Your task to perform on an android device: Open Yahoo.com Image 0: 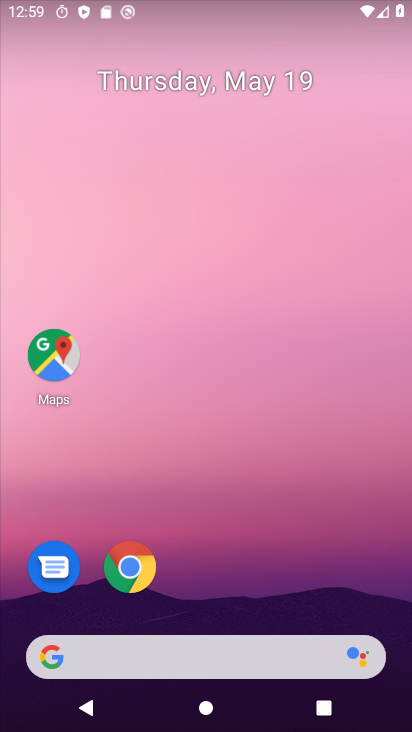
Step 0: press home button
Your task to perform on an android device: Open Yahoo.com Image 1: 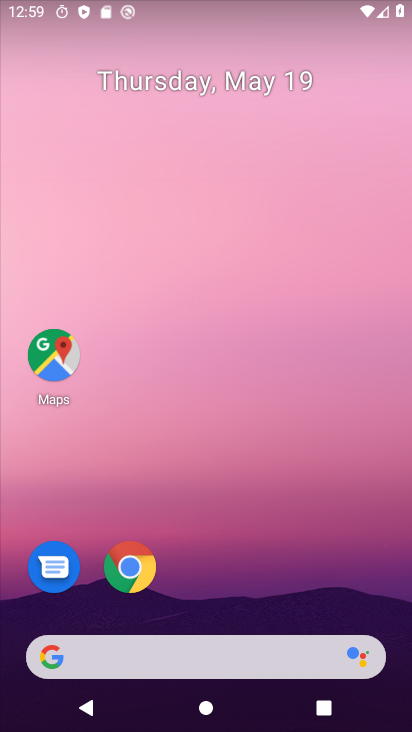
Step 1: click (135, 585)
Your task to perform on an android device: Open Yahoo.com Image 2: 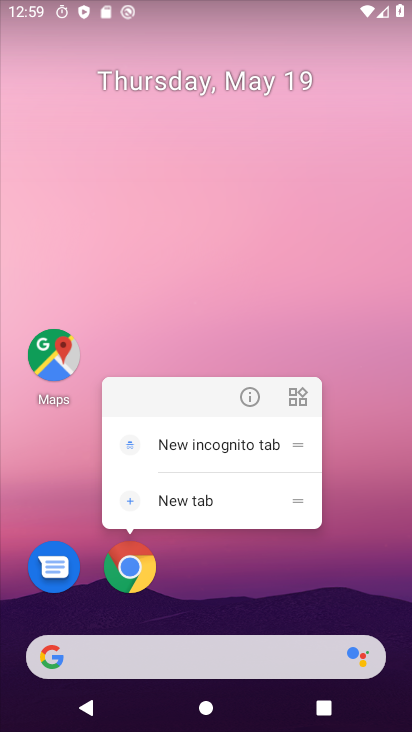
Step 2: click (133, 575)
Your task to perform on an android device: Open Yahoo.com Image 3: 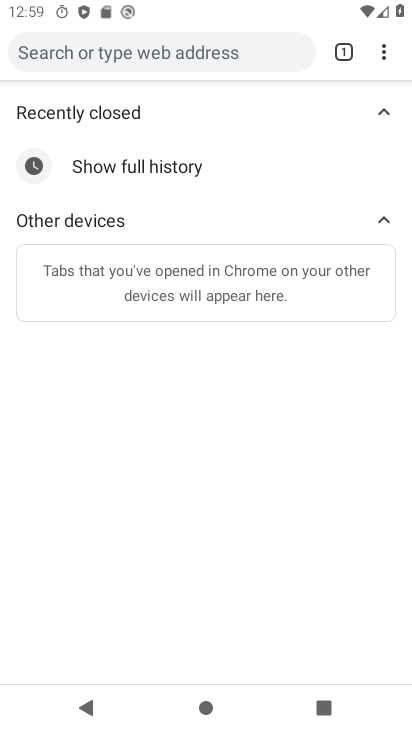
Step 3: drag from (380, 54) to (300, 105)
Your task to perform on an android device: Open Yahoo.com Image 4: 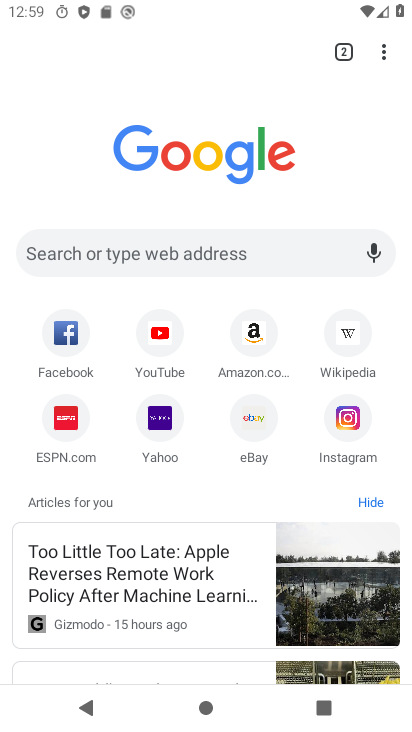
Step 4: click (158, 420)
Your task to perform on an android device: Open Yahoo.com Image 5: 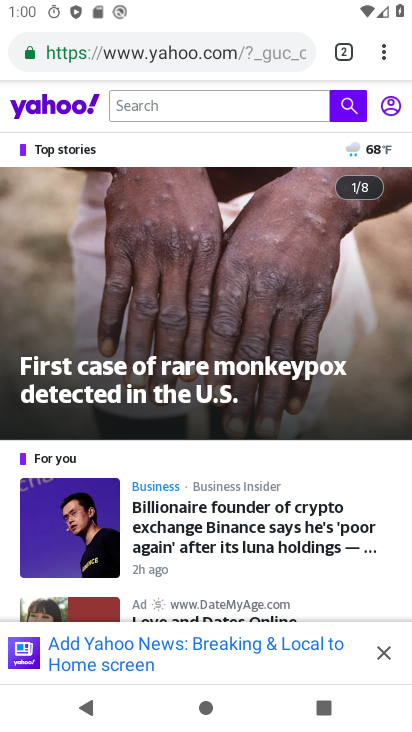
Step 5: task complete